Your task to perform on an android device: Open calendar and show me the second week of next month Image 0: 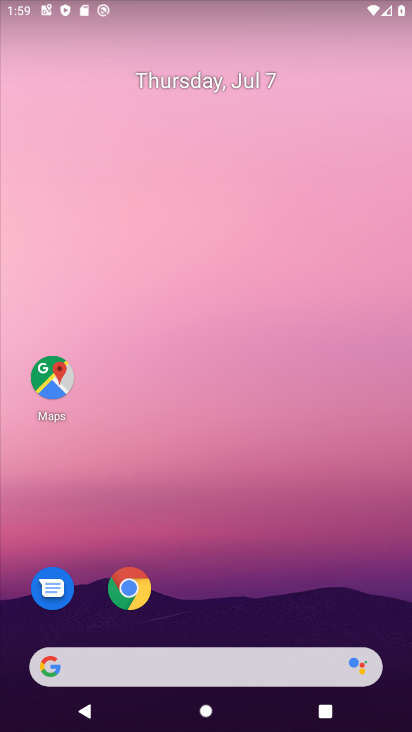
Step 0: drag from (157, 589) to (221, 58)
Your task to perform on an android device: Open calendar and show me the second week of next month Image 1: 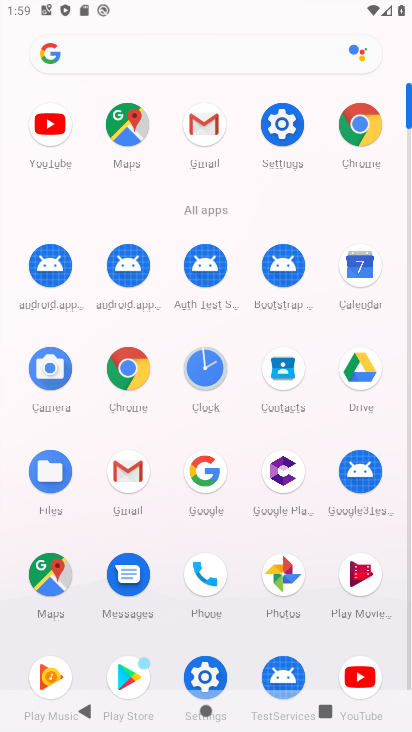
Step 1: click (350, 272)
Your task to perform on an android device: Open calendar and show me the second week of next month Image 2: 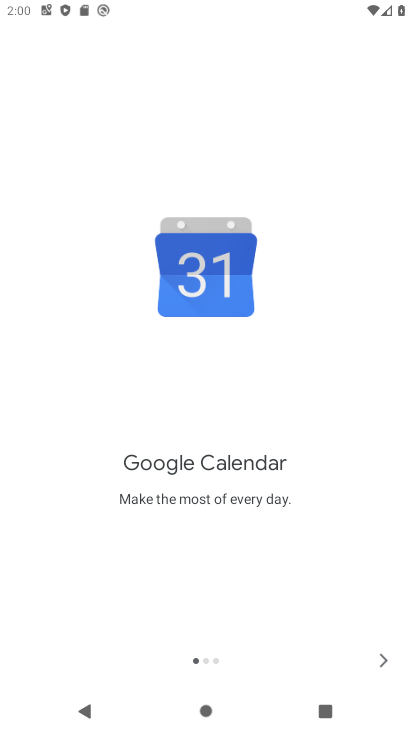
Step 2: click (371, 658)
Your task to perform on an android device: Open calendar and show me the second week of next month Image 3: 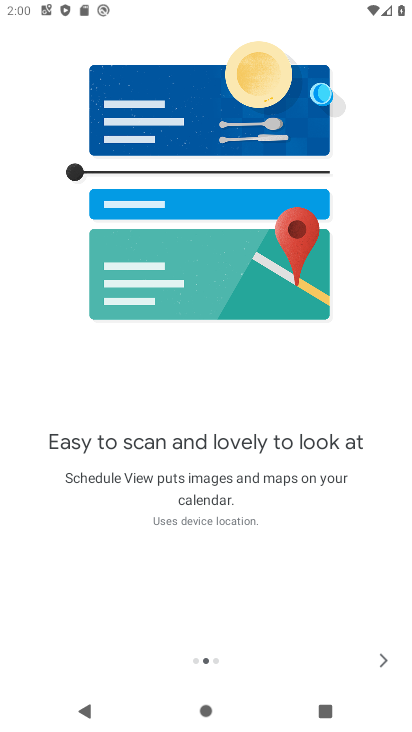
Step 3: click (389, 648)
Your task to perform on an android device: Open calendar and show me the second week of next month Image 4: 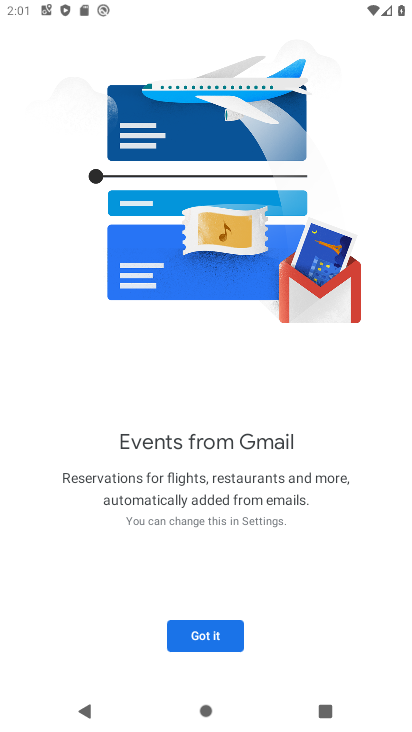
Step 4: click (203, 630)
Your task to perform on an android device: Open calendar and show me the second week of next month Image 5: 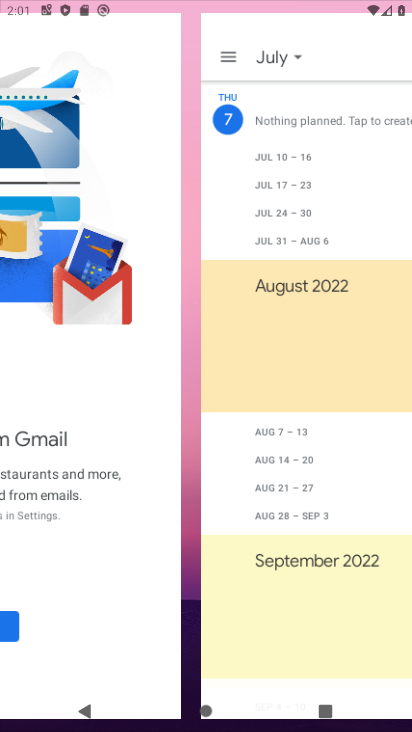
Step 5: click (206, 646)
Your task to perform on an android device: Open calendar and show me the second week of next month Image 6: 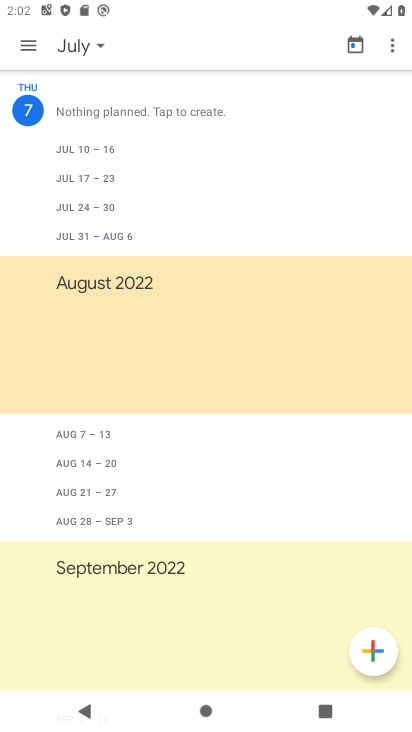
Step 6: click (87, 44)
Your task to perform on an android device: Open calendar and show me the second week of next month Image 7: 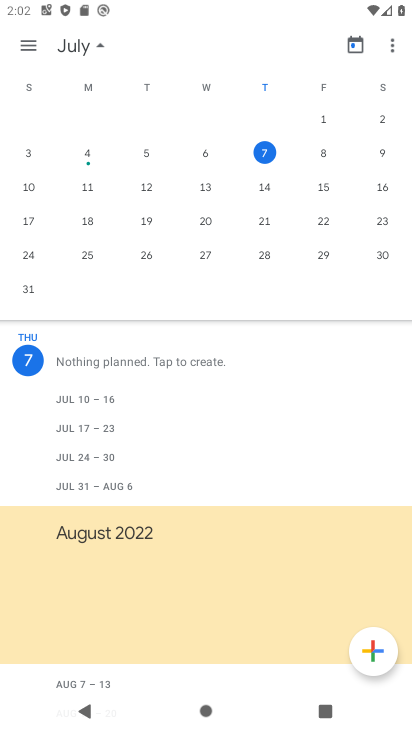
Step 7: drag from (347, 204) to (0, 191)
Your task to perform on an android device: Open calendar and show me the second week of next month Image 8: 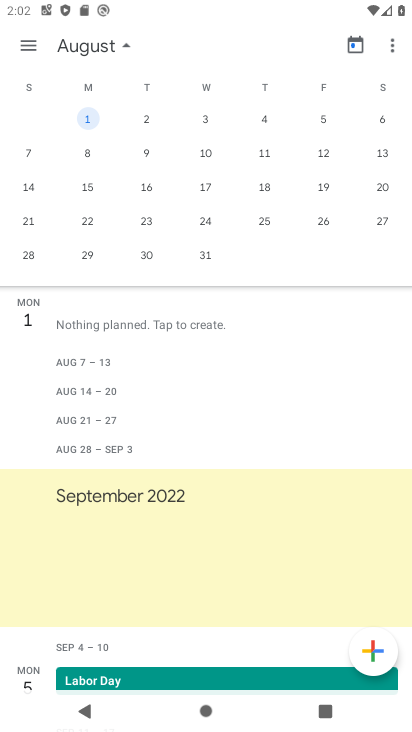
Step 8: click (86, 157)
Your task to perform on an android device: Open calendar and show me the second week of next month Image 9: 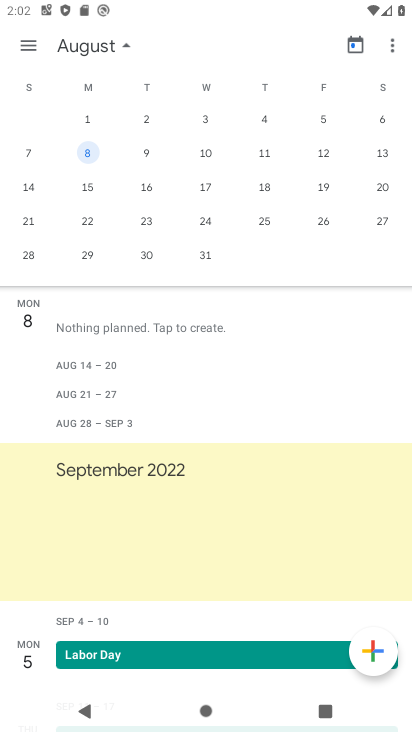
Step 9: task complete